Your task to perform on an android device: Open Maps and search for coffee Image 0: 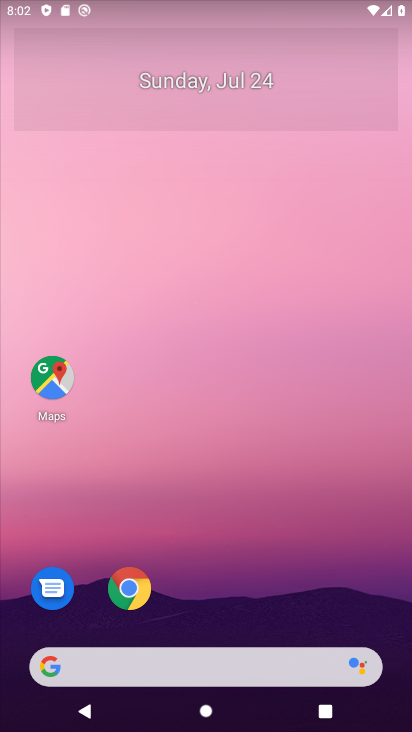
Step 0: drag from (363, 598) to (251, 43)
Your task to perform on an android device: Open Maps and search for coffee Image 1: 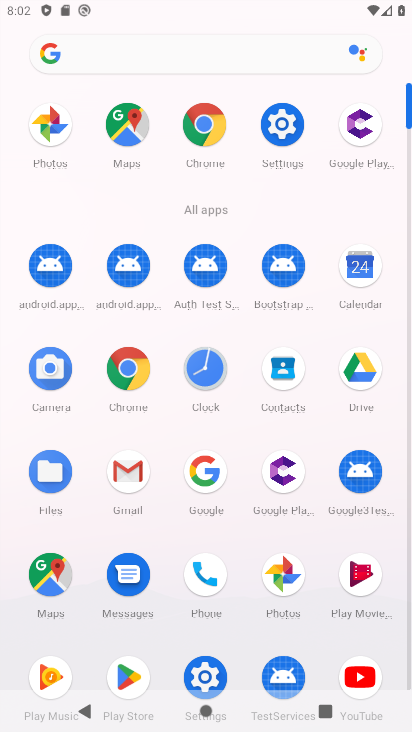
Step 1: click (127, 131)
Your task to perform on an android device: Open Maps and search for coffee Image 2: 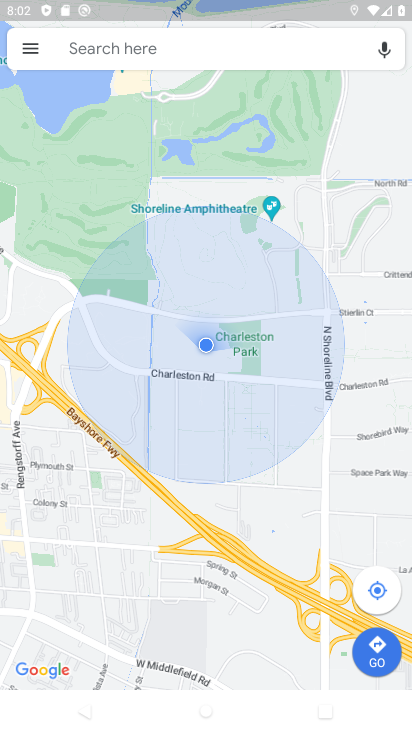
Step 2: click (236, 57)
Your task to perform on an android device: Open Maps and search for coffee Image 3: 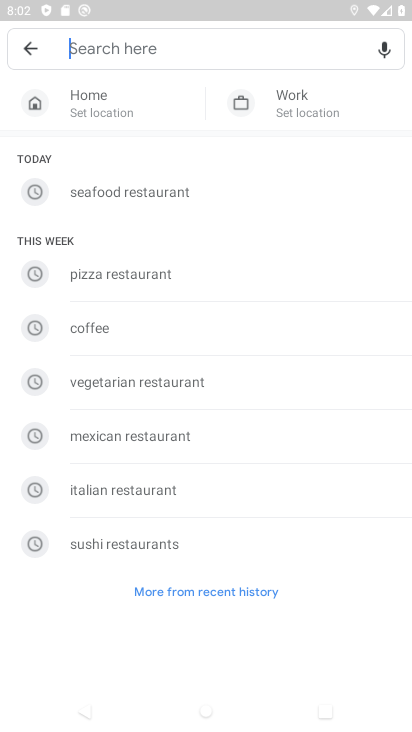
Step 3: type "coffee"
Your task to perform on an android device: Open Maps and search for coffee Image 4: 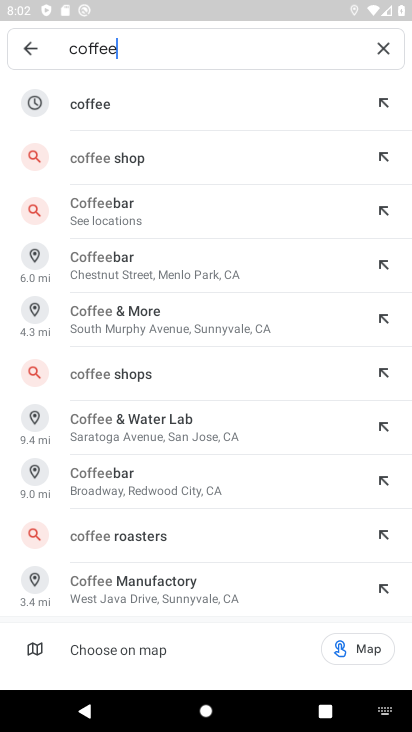
Step 4: click (205, 101)
Your task to perform on an android device: Open Maps and search for coffee Image 5: 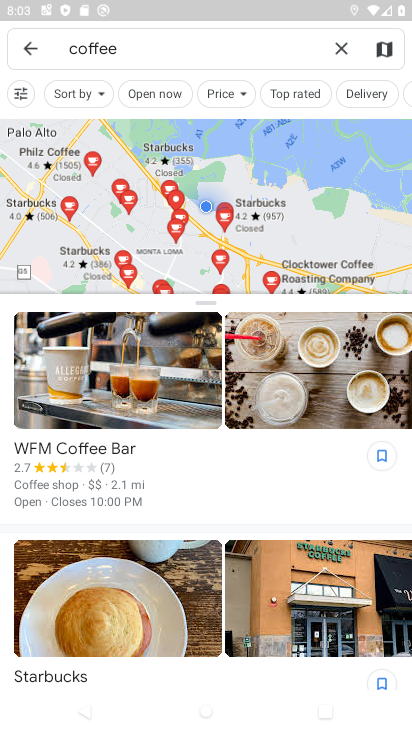
Step 5: task complete